Your task to perform on an android device: Is it going to rain tomorrow? Image 0: 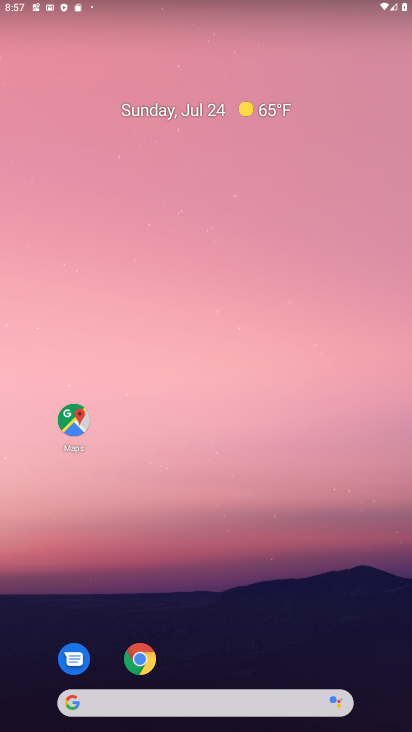
Step 0: click (268, 117)
Your task to perform on an android device: Is it going to rain tomorrow? Image 1: 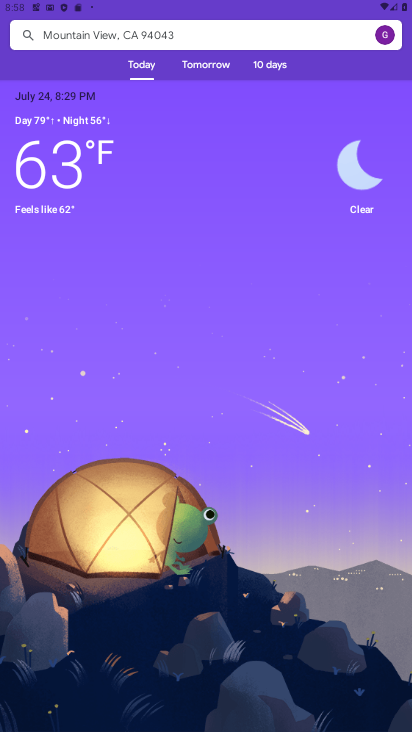
Step 1: click (210, 72)
Your task to perform on an android device: Is it going to rain tomorrow? Image 2: 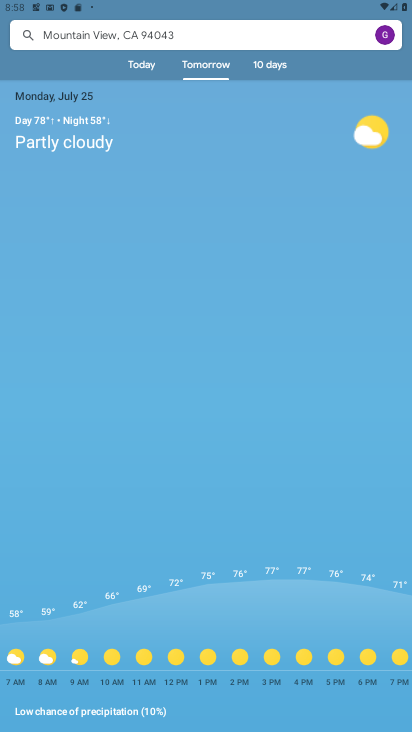
Step 2: task complete